Your task to perform on an android device: toggle airplane mode Image 0: 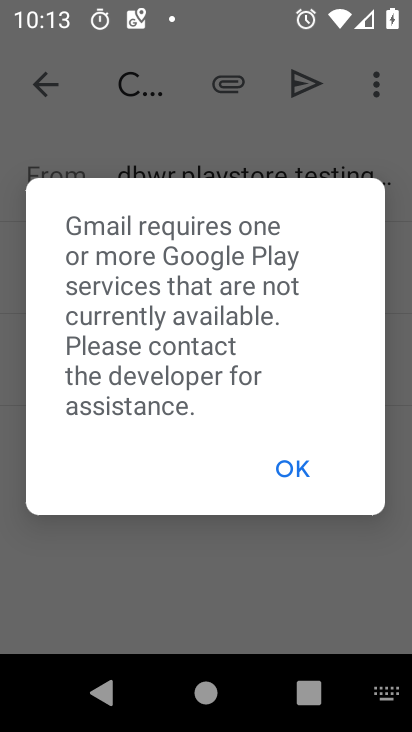
Step 0: press home button
Your task to perform on an android device: toggle airplane mode Image 1: 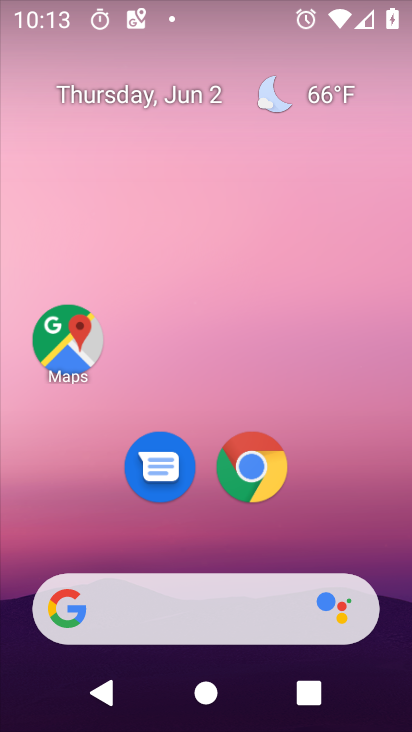
Step 1: drag from (69, 569) to (265, 120)
Your task to perform on an android device: toggle airplane mode Image 2: 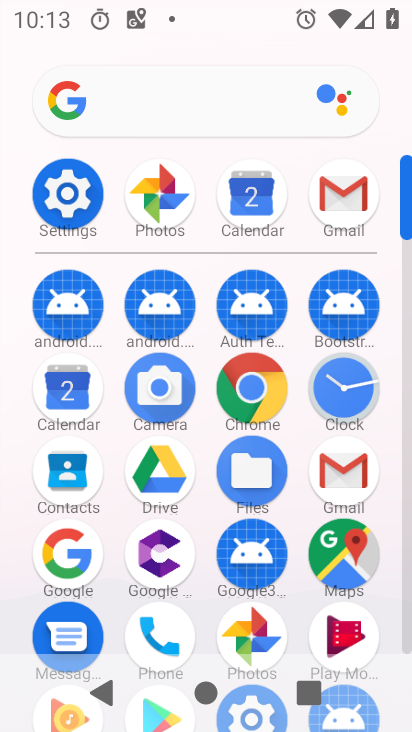
Step 2: click (56, 204)
Your task to perform on an android device: toggle airplane mode Image 3: 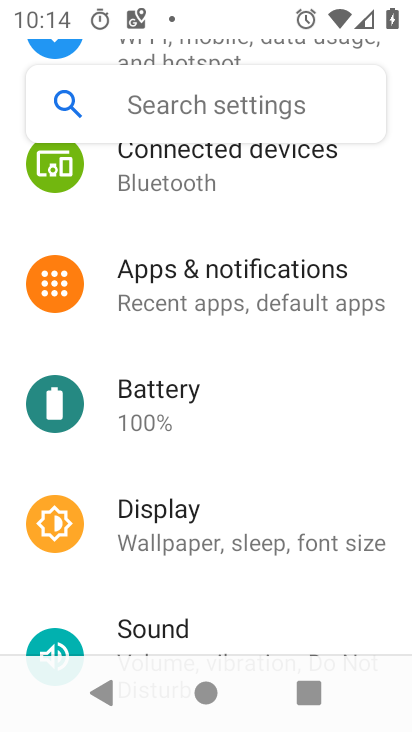
Step 3: drag from (369, 182) to (396, 122)
Your task to perform on an android device: toggle airplane mode Image 4: 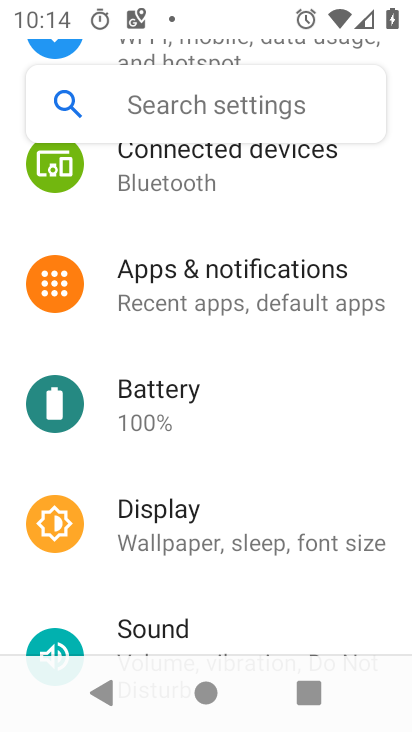
Step 4: drag from (24, 290) to (116, 608)
Your task to perform on an android device: toggle airplane mode Image 5: 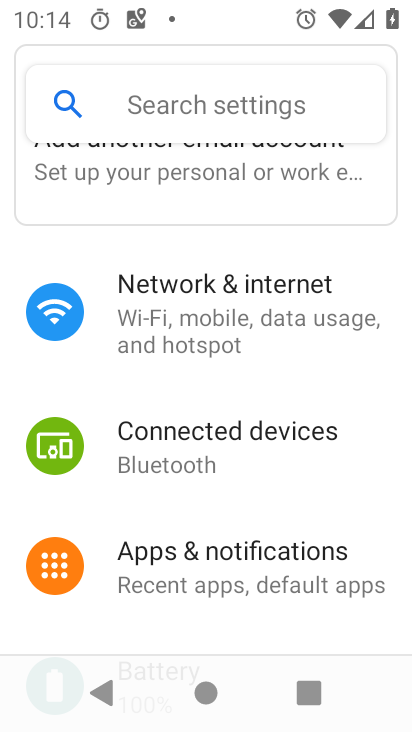
Step 5: click (208, 323)
Your task to perform on an android device: toggle airplane mode Image 6: 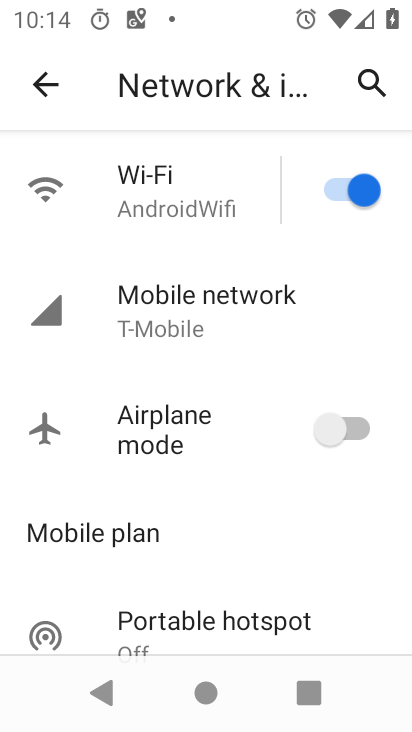
Step 6: click (327, 425)
Your task to perform on an android device: toggle airplane mode Image 7: 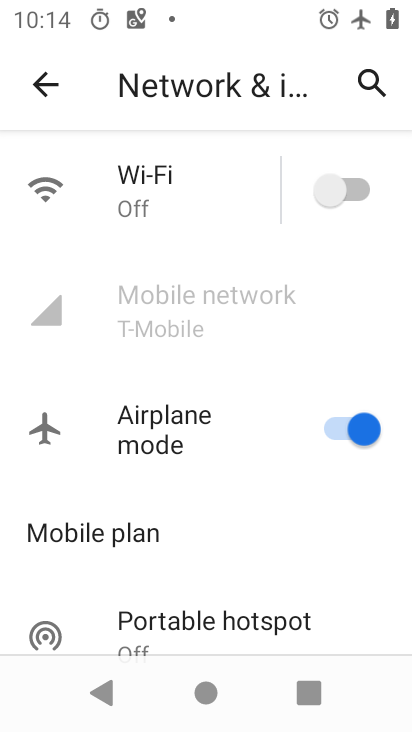
Step 7: task complete